Your task to perform on an android device: toggle location history Image 0: 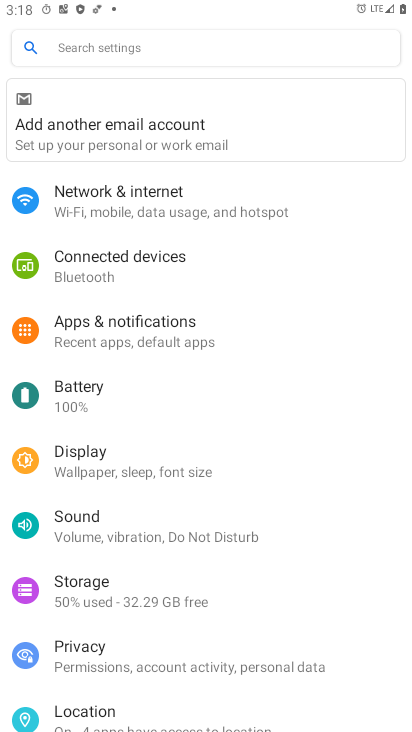
Step 0: press home button
Your task to perform on an android device: toggle location history Image 1: 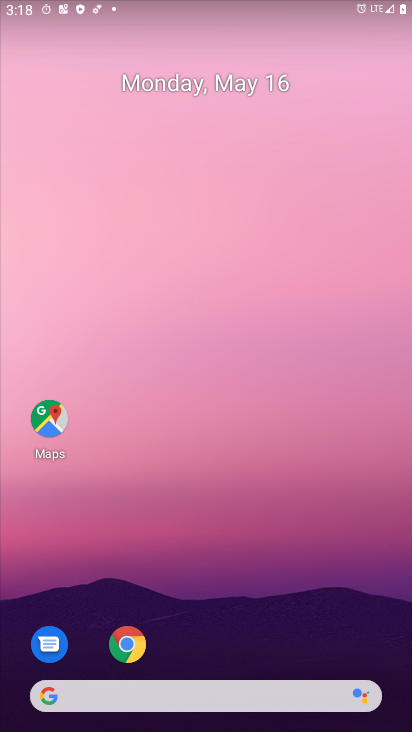
Step 1: drag from (250, 399) to (250, 150)
Your task to perform on an android device: toggle location history Image 2: 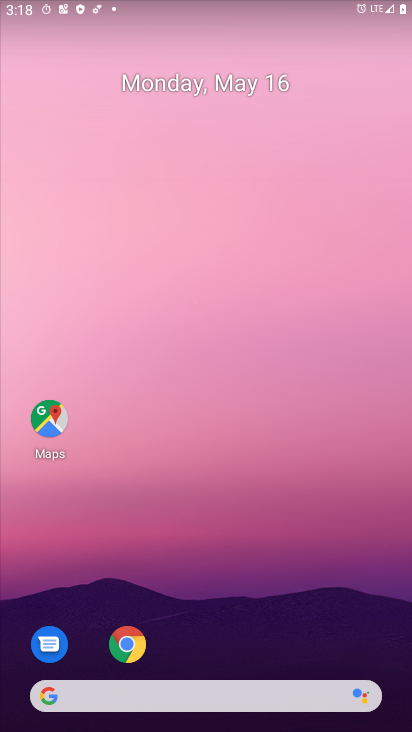
Step 2: drag from (193, 625) to (226, 186)
Your task to perform on an android device: toggle location history Image 3: 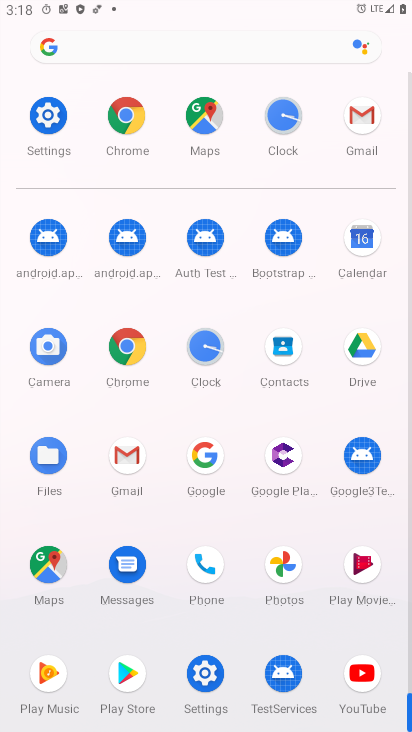
Step 3: click (61, 111)
Your task to perform on an android device: toggle location history Image 4: 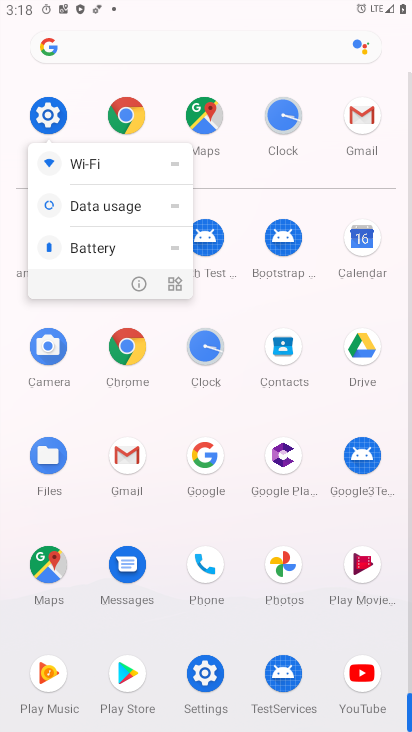
Step 4: click (59, 110)
Your task to perform on an android device: toggle location history Image 5: 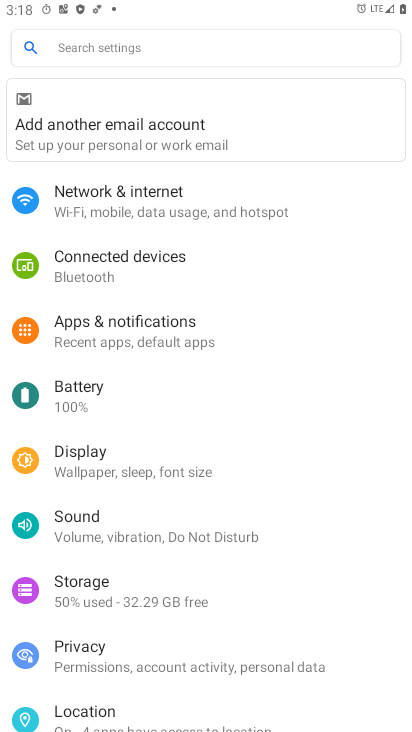
Step 5: drag from (163, 556) to (236, 132)
Your task to perform on an android device: toggle location history Image 6: 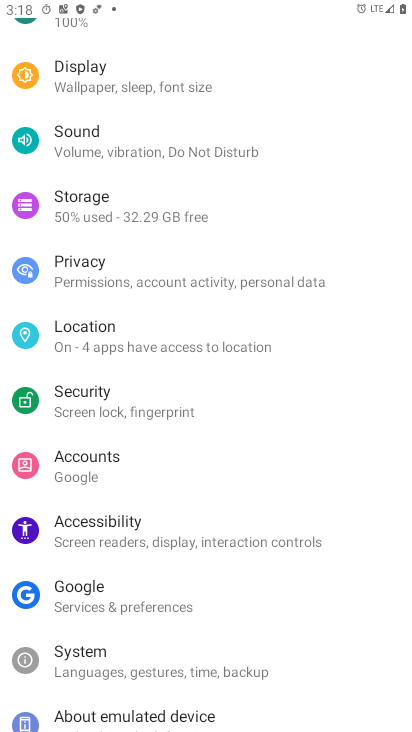
Step 6: click (200, 348)
Your task to perform on an android device: toggle location history Image 7: 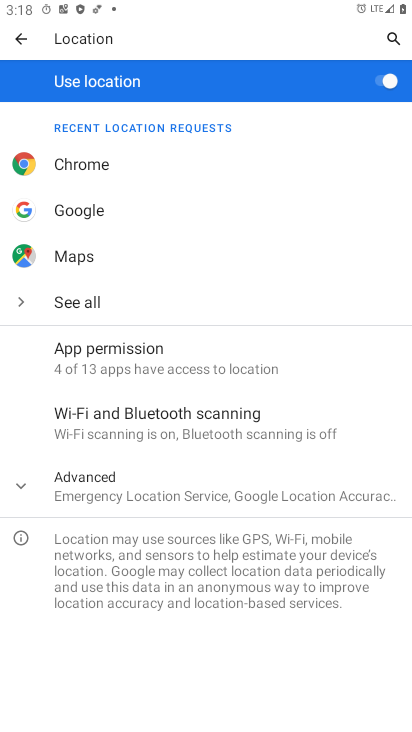
Step 7: click (144, 488)
Your task to perform on an android device: toggle location history Image 8: 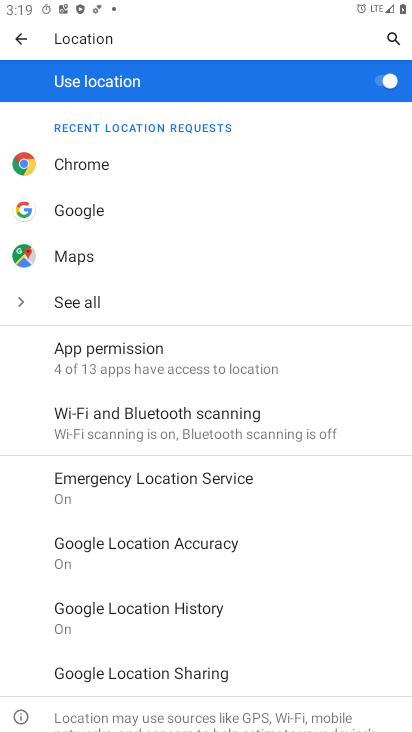
Step 8: click (190, 612)
Your task to perform on an android device: toggle location history Image 9: 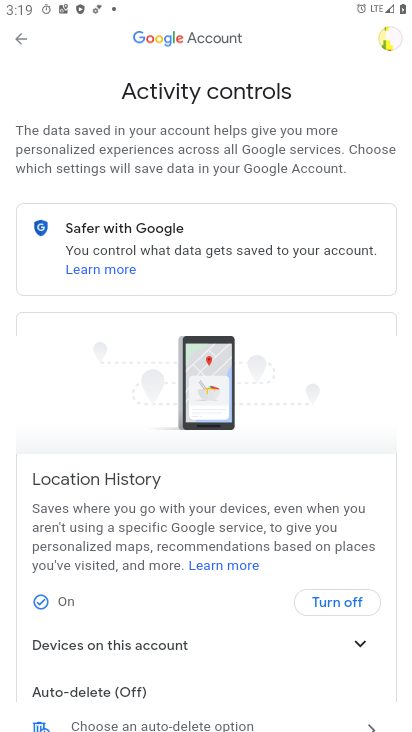
Step 9: drag from (211, 593) to (246, 314)
Your task to perform on an android device: toggle location history Image 10: 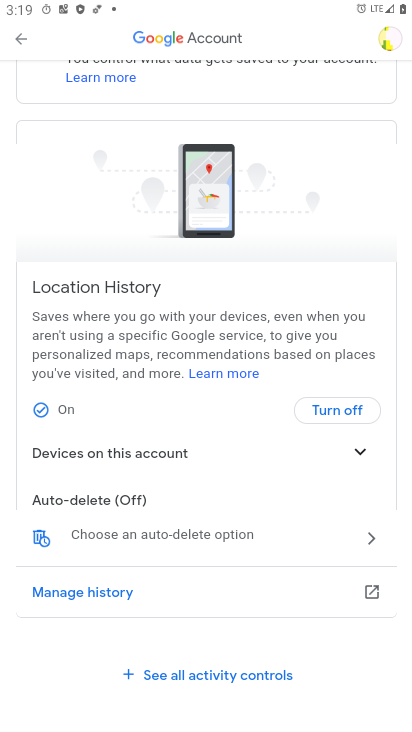
Step 10: click (326, 419)
Your task to perform on an android device: toggle location history Image 11: 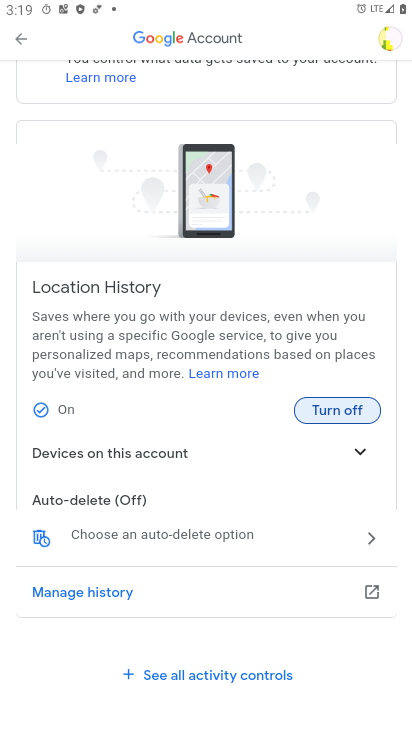
Step 11: click (329, 410)
Your task to perform on an android device: toggle location history Image 12: 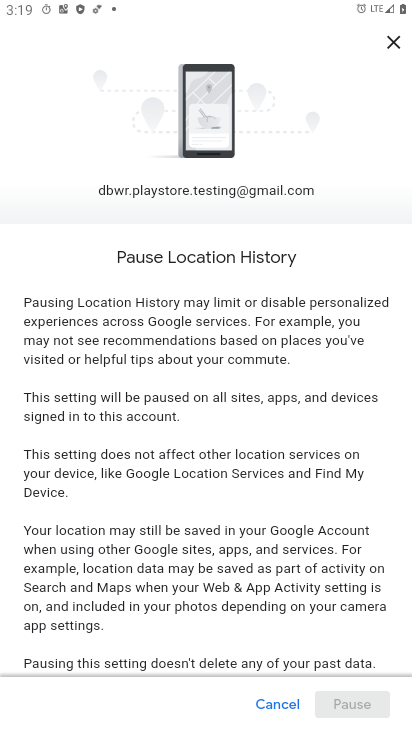
Step 12: drag from (261, 571) to (310, 221)
Your task to perform on an android device: toggle location history Image 13: 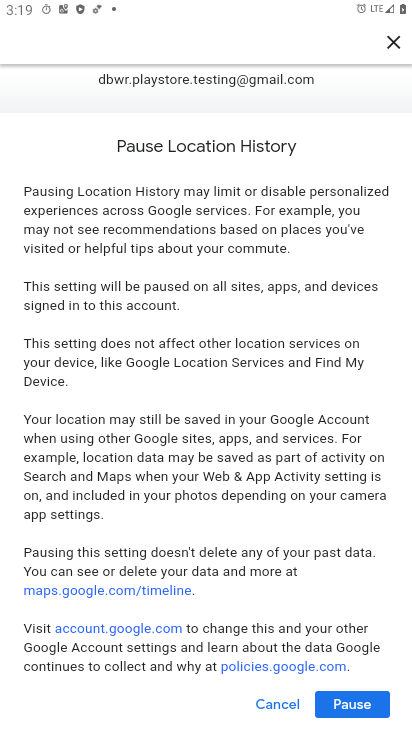
Step 13: click (350, 705)
Your task to perform on an android device: toggle location history Image 14: 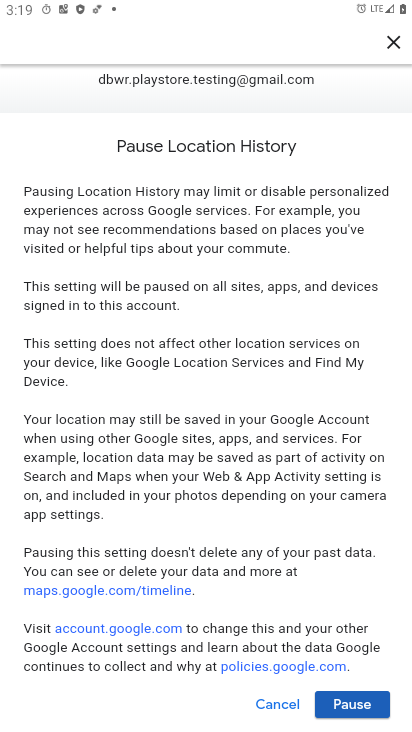
Step 14: click (366, 707)
Your task to perform on an android device: toggle location history Image 15: 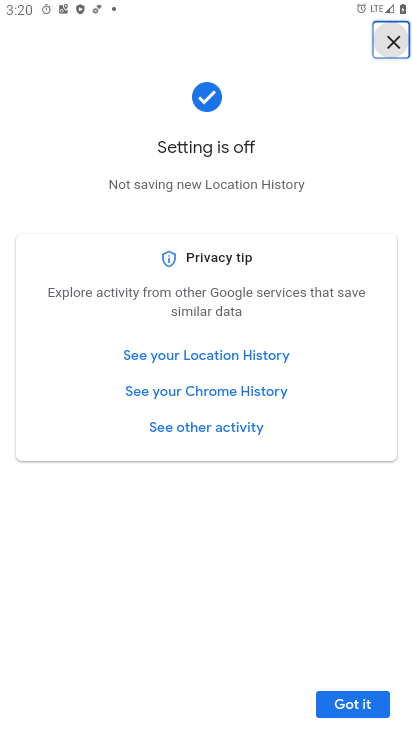
Step 15: click (360, 692)
Your task to perform on an android device: toggle location history Image 16: 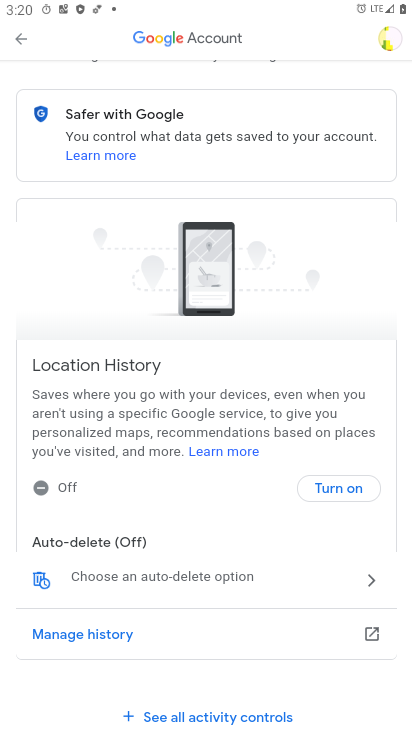
Step 16: task complete